Your task to perform on an android device: uninstall "Firefox Browser" Image 0: 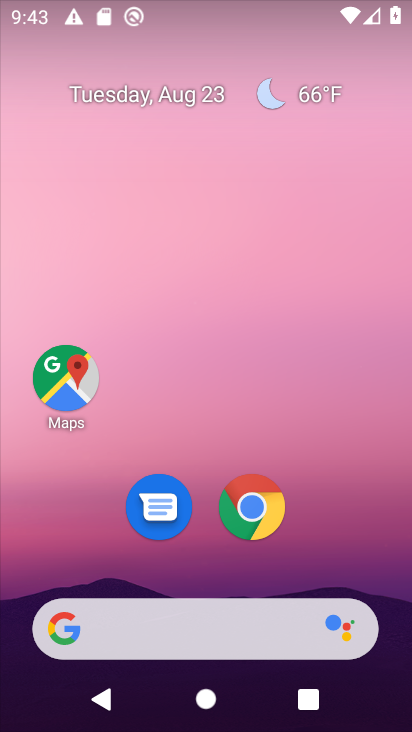
Step 0: drag from (389, 616) to (364, 48)
Your task to perform on an android device: uninstall "Firefox Browser" Image 1: 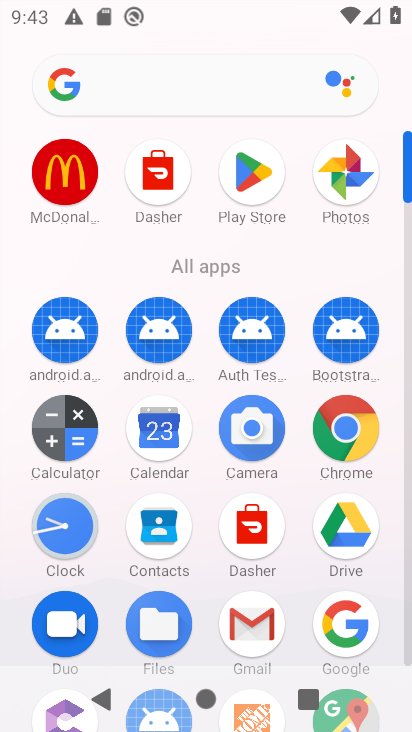
Step 1: click (407, 649)
Your task to perform on an android device: uninstall "Firefox Browser" Image 2: 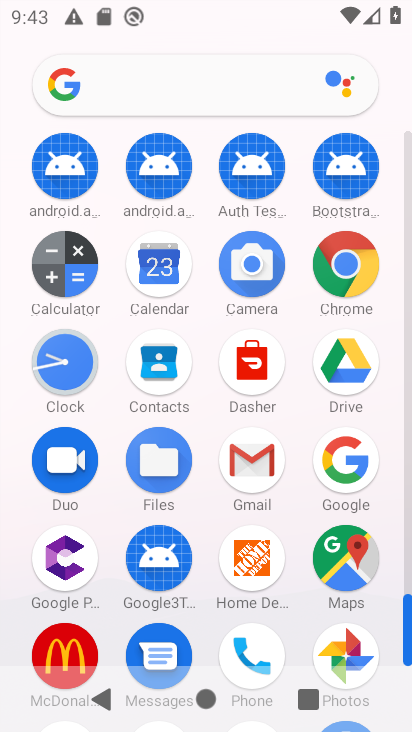
Step 2: drag from (196, 616) to (204, 335)
Your task to perform on an android device: uninstall "Firefox Browser" Image 3: 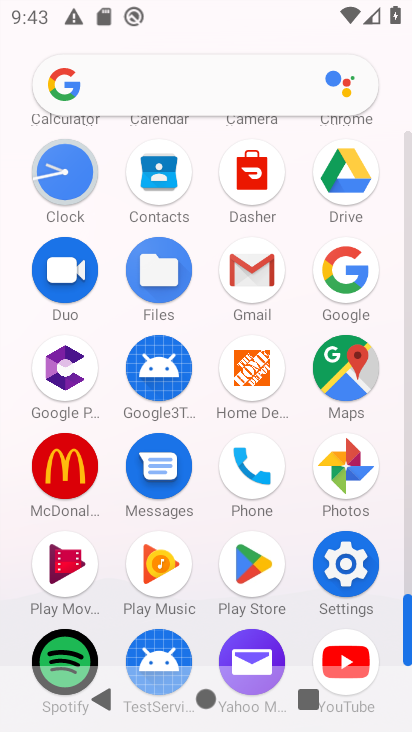
Step 3: click (255, 563)
Your task to perform on an android device: uninstall "Firefox Browser" Image 4: 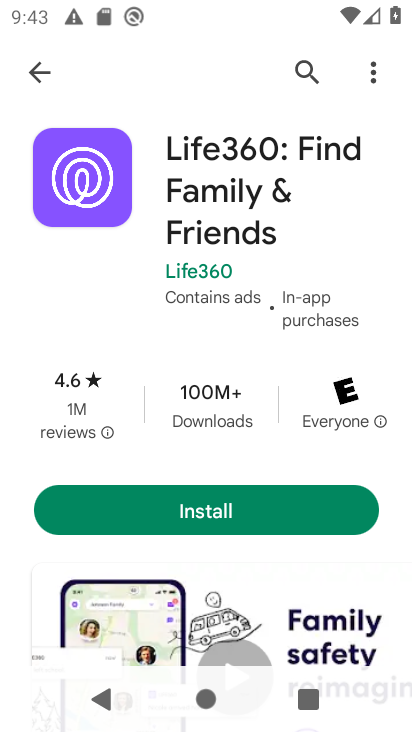
Step 4: click (298, 68)
Your task to perform on an android device: uninstall "Firefox Browser" Image 5: 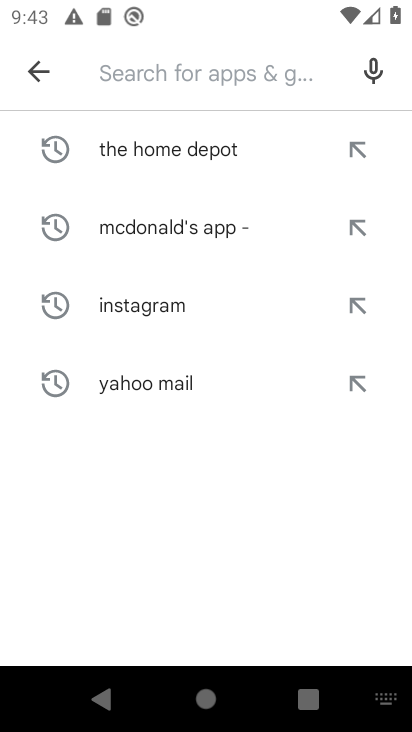
Step 5: type "Firefox Browser"
Your task to perform on an android device: uninstall "Firefox Browser" Image 6: 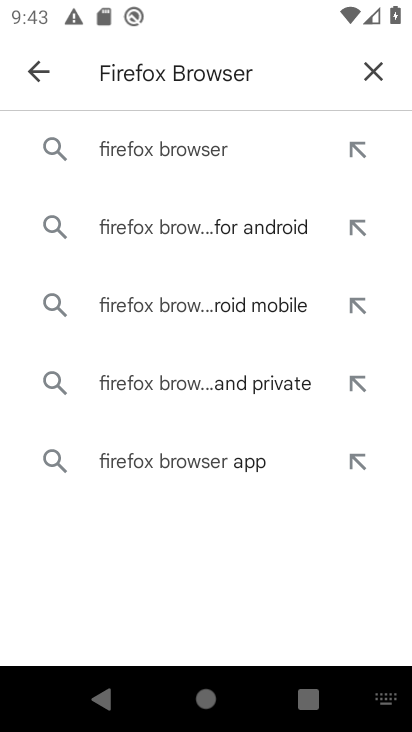
Step 6: click (140, 146)
Your task to perform on an android device: uninstall "Firefox Browser" Image 7: 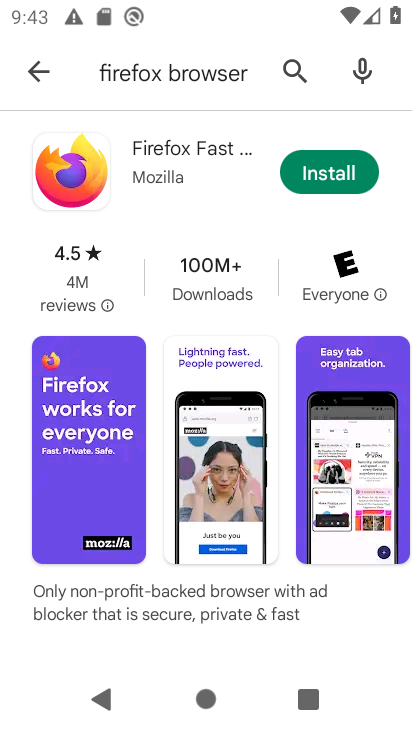
Step 7: task complete